Your task to perform on an android device: turn off wifi Image 0: 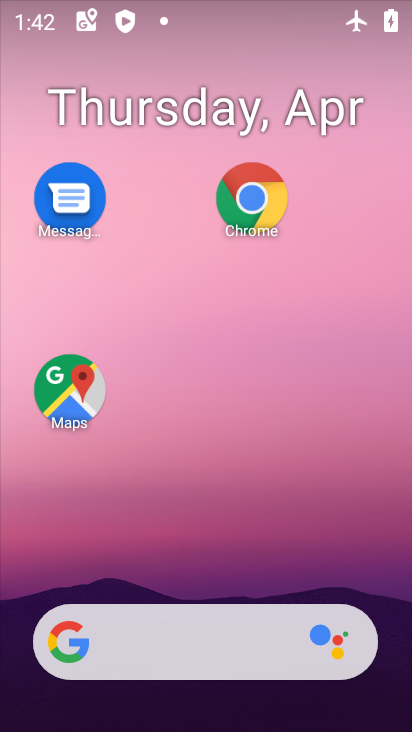
Step 0: drag from (230, 585) to (119, 27)
Your task to perform on an android device: turn off wifi Image 1: 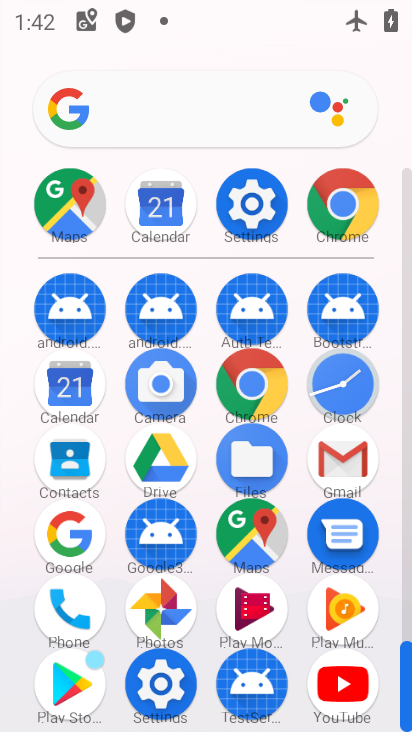
Step 1: click (256, 205)
Your task to perform on an android device: turn off wifi Image 2: 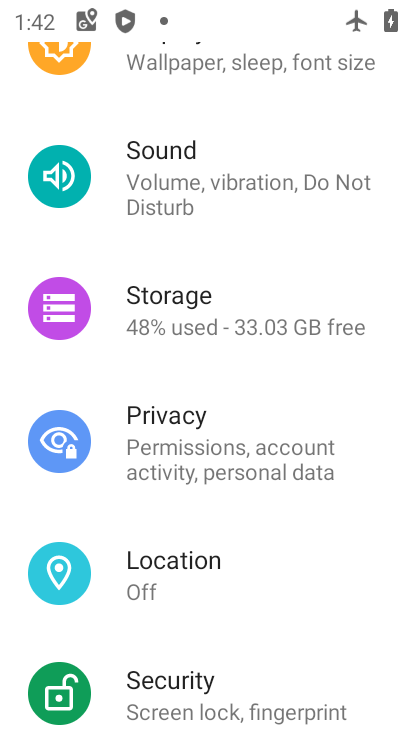
Step 2: drag from (256, 205) to (249, 581)
Your task to perform on an android device: turn off wifi Image 3: 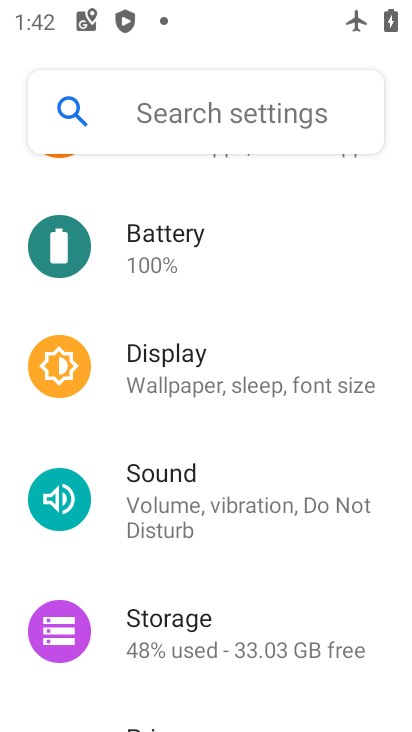
Step 3: drag from (233, 210) to (248, 569)
Your task to perform on an android device: turn off wifi Image 4: 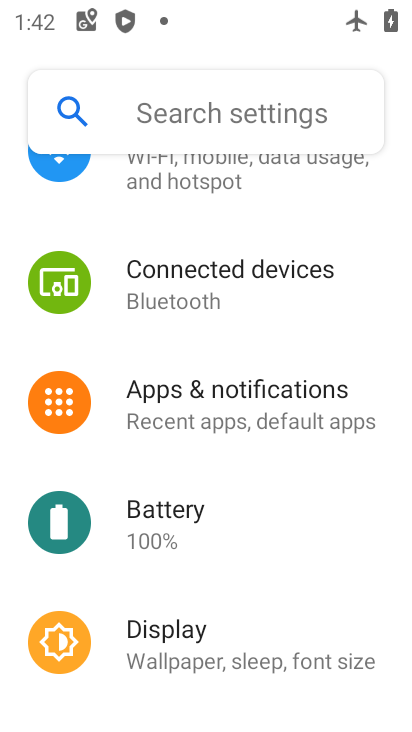
Step 4: click (196, 181)
Your task to perform on an android device: turn off wifi Image 5: 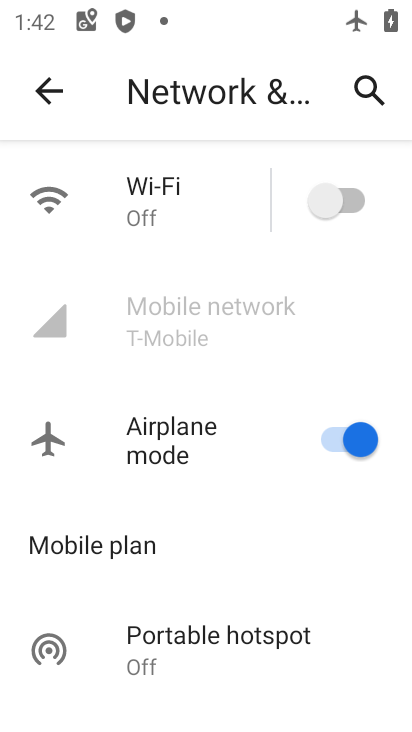
Step 5: click (188, 189)
Your task to perform on an android device: turn off wifi Image 6: 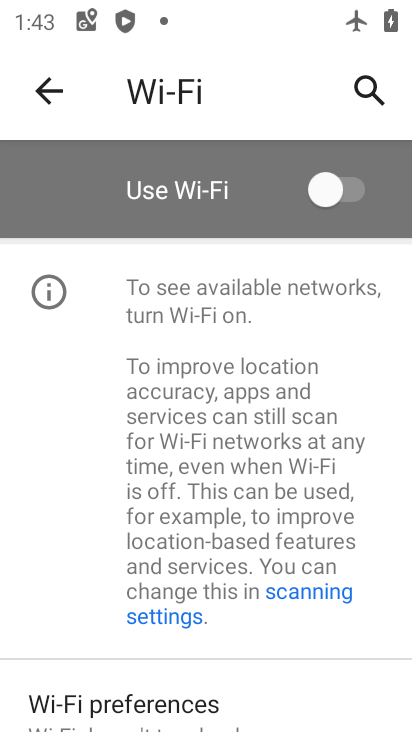
Step 6: task complete